Your task to perform on an android device: turn on priority inbox in the gmail app Image 0: 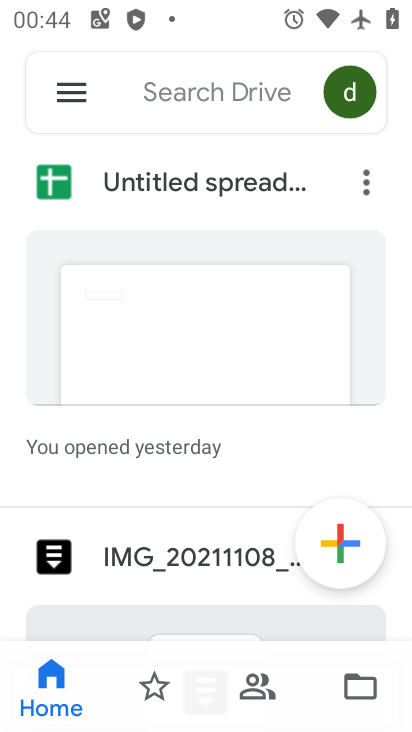
Step 0: press home button
Your task to perform on an android device: turn on priority inbox in the gmail app Image 1: 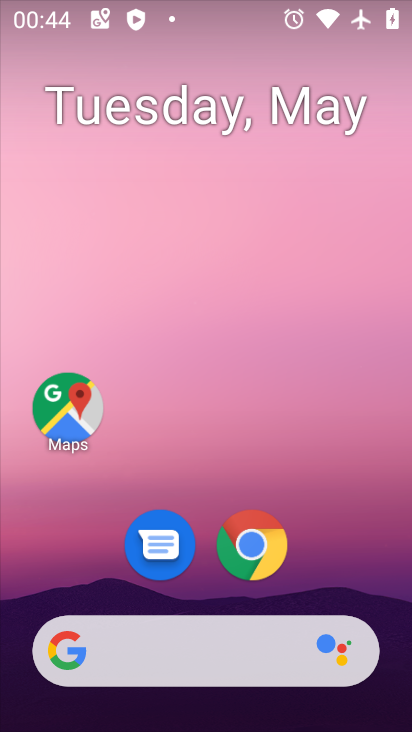
Step 1: drag from (306, 601) to (323, 59)
Your task to perform on an android device: turn on priority inbox in the gmail app Image 2: 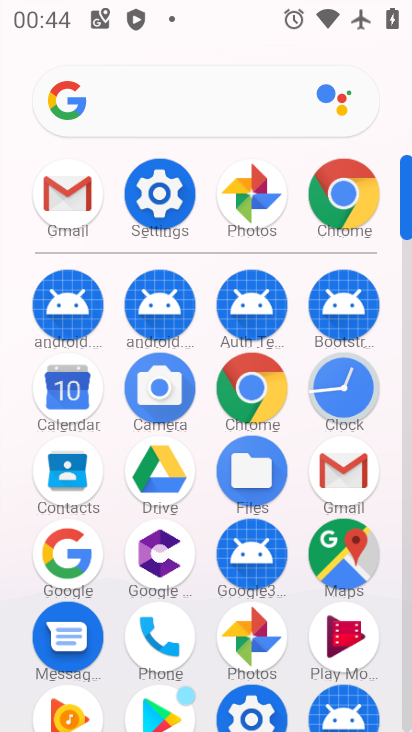
Step 2: click (332, 475)
Your task to perform on an android device: turn on priority inbox in the gmail app Image 3: 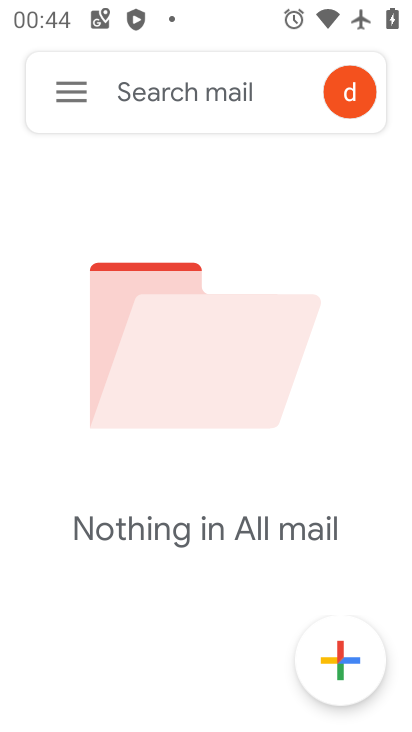
Step 3: click (65, 93)
Your task to perform on an android device: turn on priority inbox in the gmail app Image 4: 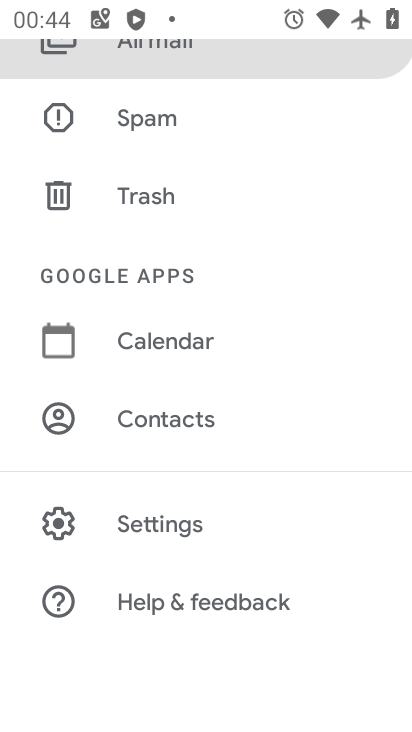
Step 4: click (144, 535)
Your task to perform on an android device: turn on priority inbox in the gmail app Image 5: 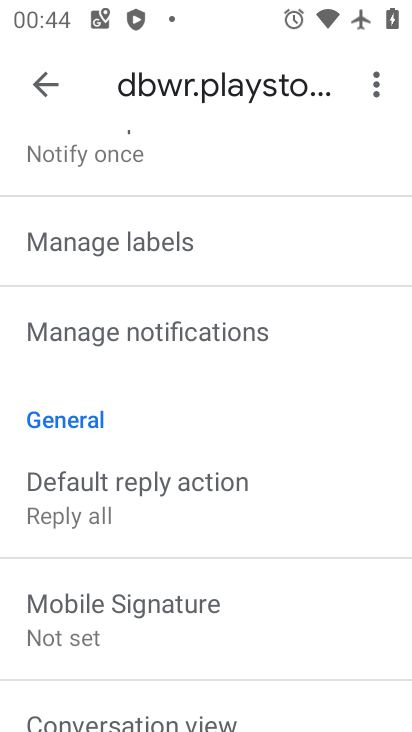
Step 5: drag from (189, 404) to (228, 602)
Your task to perform on an android device: turn on priority inbox in the gmail app Image 6: 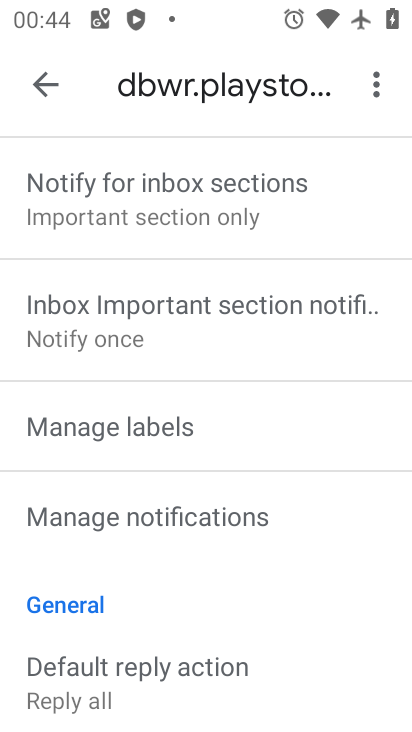
Step 6: drag from (223, 339) to (232, 528)
Your task to perform on an android device: turn on priority inbox in the gmail app Image 7: 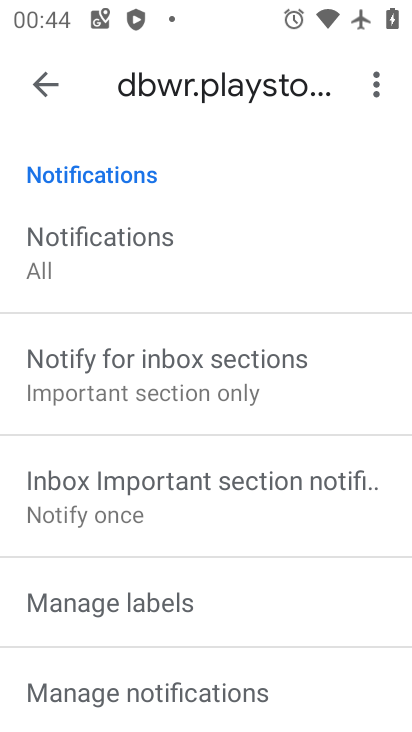
Step 7: drag from (198, 255) to (191, 521)
Your task to perform on an android device: turn on priority inbox in the gmail app Image 8: 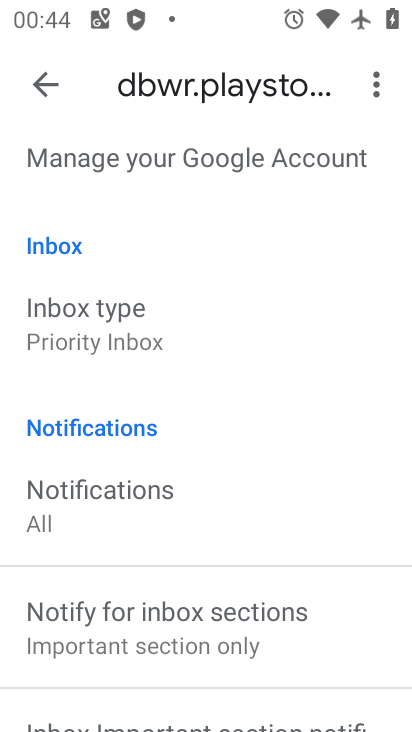
Step 8: click (147, 326)
Your task to perform on an android device: turn on priority inbox in the gmail app Image 9: 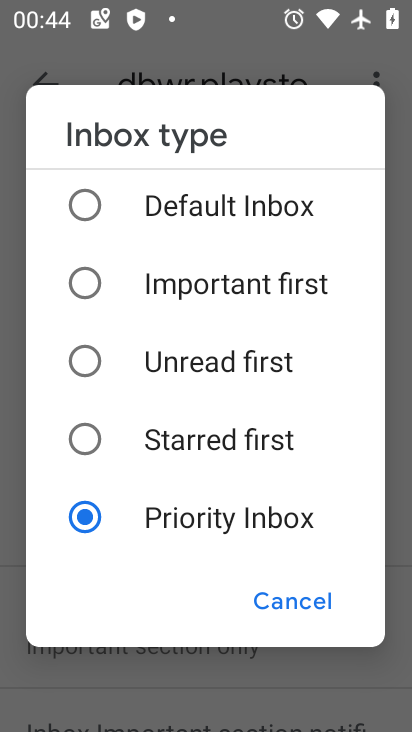
Step 9: click (99, 507)
Your task to perform on an android device: turn on priority inbox in the gmail app Image 10: 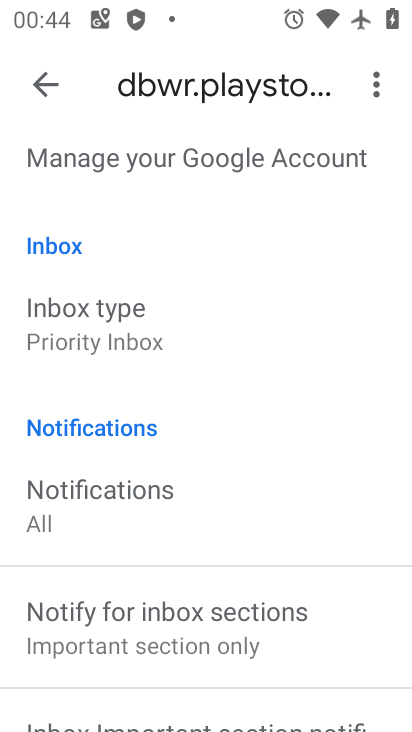
Step 10: task complete